Your task to perform on an android device: see sites visited before in the chrome app Image 0: 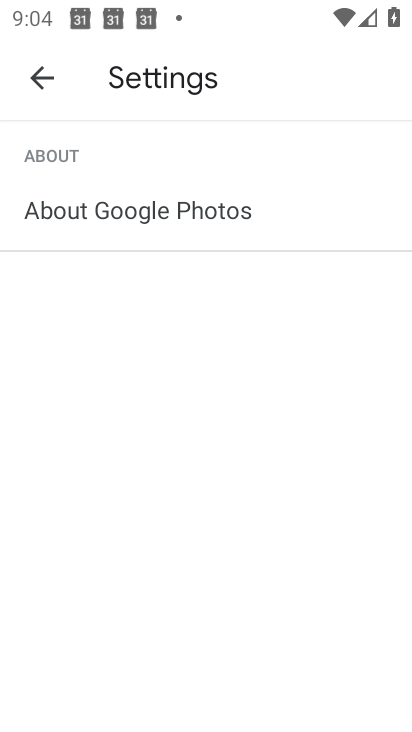
Step 0: press back button
Your task to perform on an android device: see sites visited before in the chrome app Image 1: 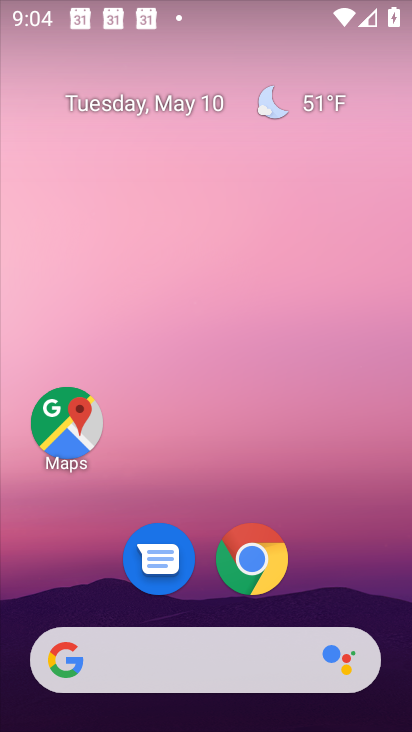
Step 1: click (247, 557)
Your task to perform on an android device: see sites visited before in the chrome app Image 2: 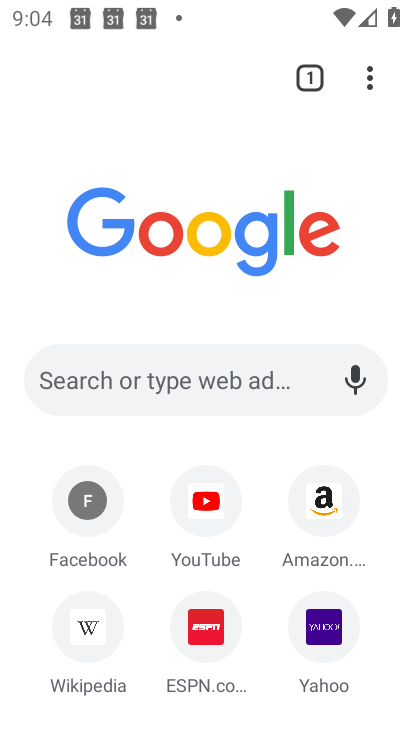
Step 2: click (371, 80)
Your task to perform on an android device: see sites visited before in the chrome app Image 3: 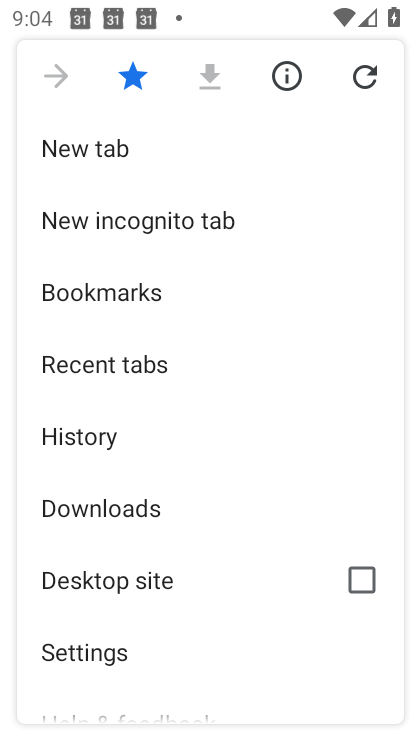
Step 3: click (87, 433)
Your task to perform on an android device: see sites visited before in the chrome app Image 4: 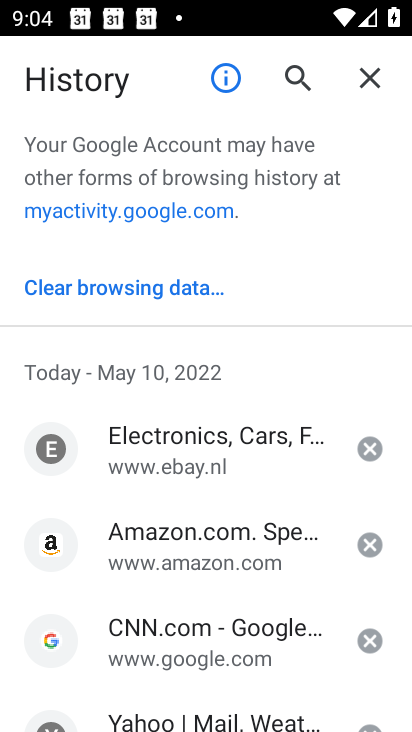
Step 4: task complete